Your task to perform on an android device: clear all cookies in the chrome app Image 0: 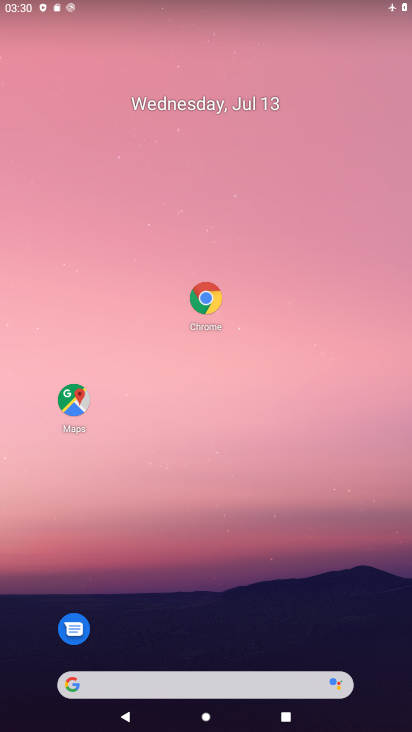
Step 0: drag from (311, 568) to (309, 185)
Your task to perform on an android device: clear all cookies in the chrome app Image 1: 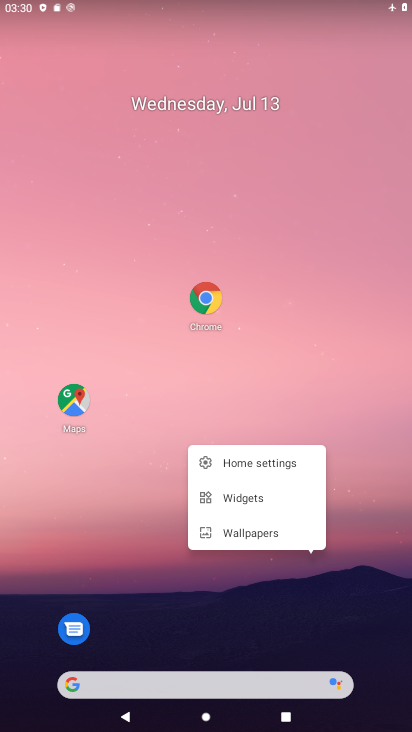
Step 1: click (208, 292)
Your task to perform on an android device: clear all cookies in the chrome app Image 2: 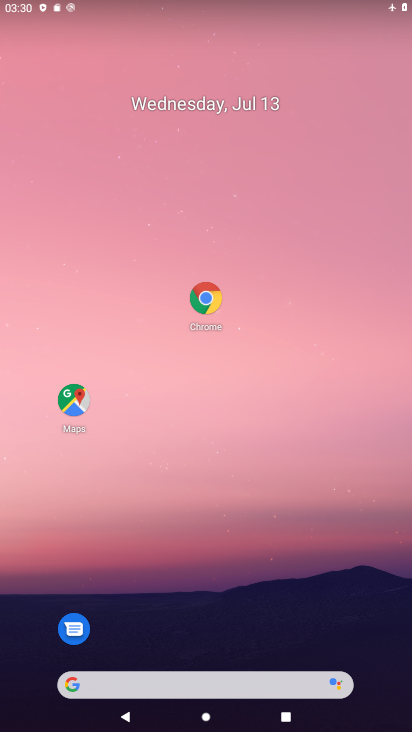
Step 2: click (208, 292)
Your task to perform on an android device: clear all cookies in the chrome app Image 3: 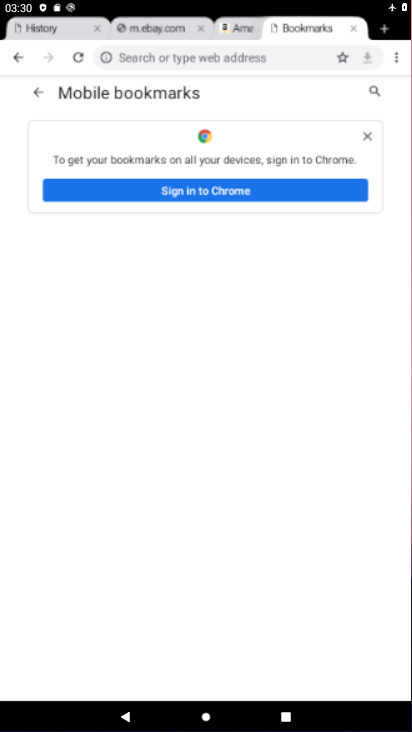
Step 3: click (208, 292)
Your task to perform on an android device: clear all cookies in the chrome app Image 4: 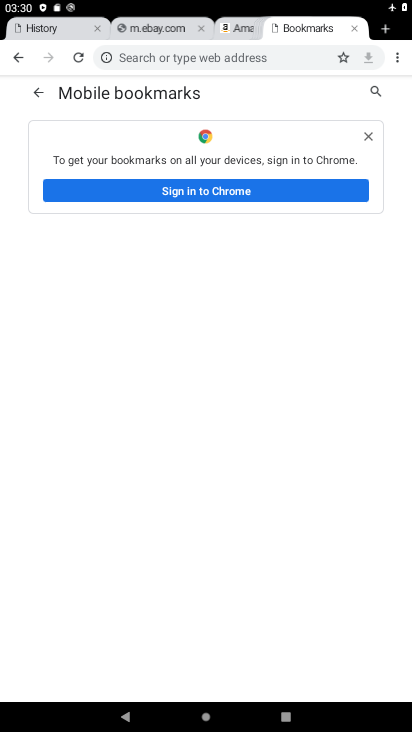
Step 4: click (389, 50)
Your task to perform on an android device: clear all cookies in the chrome app Image 5: 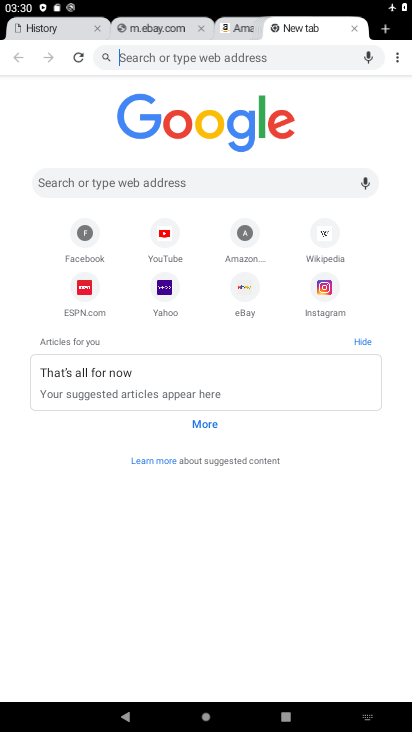
Step 5: click (397, 51)
Your task to perform on an android device: clear all cookies in the chrome app Image 6: 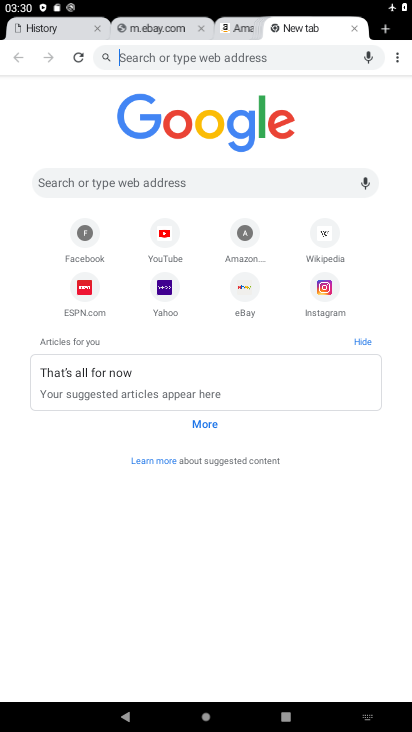
Step 6: click (392, 61)
Your task to perform on an android device: clear all cookies in the chrome app Image 7: 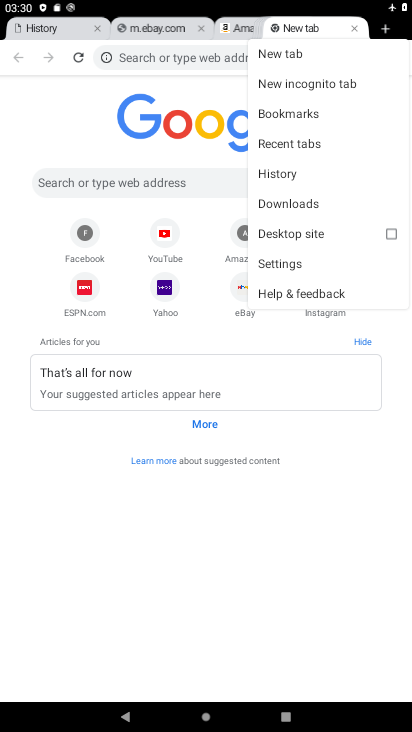
Step 7: click (284, 252)
Your task to perform on an android device: clear all cookies in the chrome app Image 8: 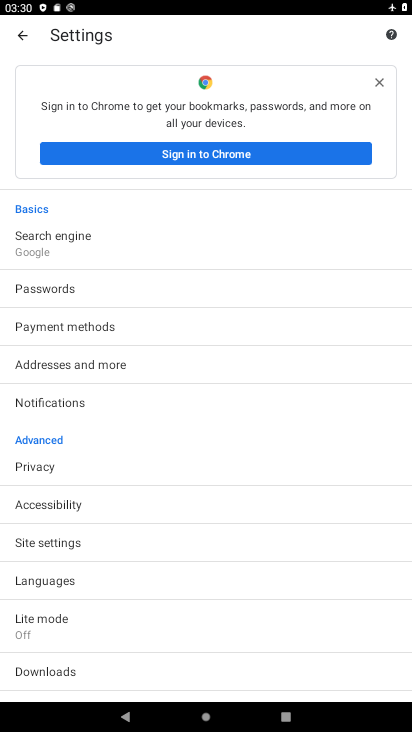
Step 8: click (84, 452)
Your task to perform on an android device: clear all cookies in the chrome app Image 9: 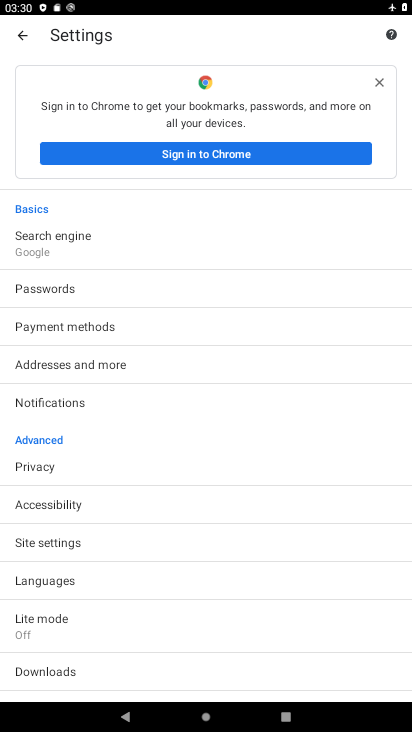
Step 9: click (61, 456)
Your task to perform on an android device: clear all cookies in the chrome app Image 10: 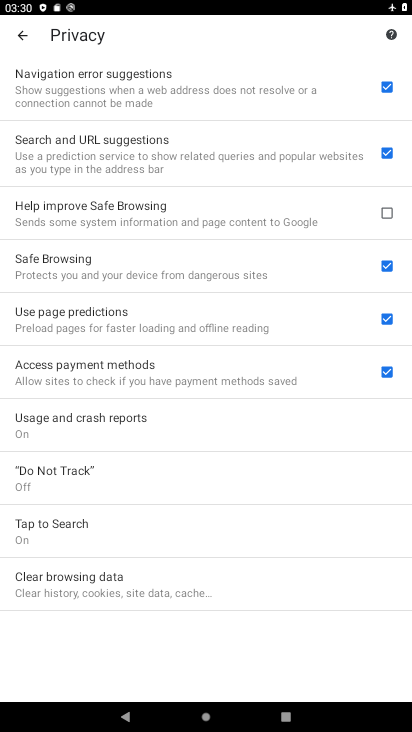
Step 10: click (277, 583)
Your task to perform on an android device: clear all cookies in the chrome app Image 11: 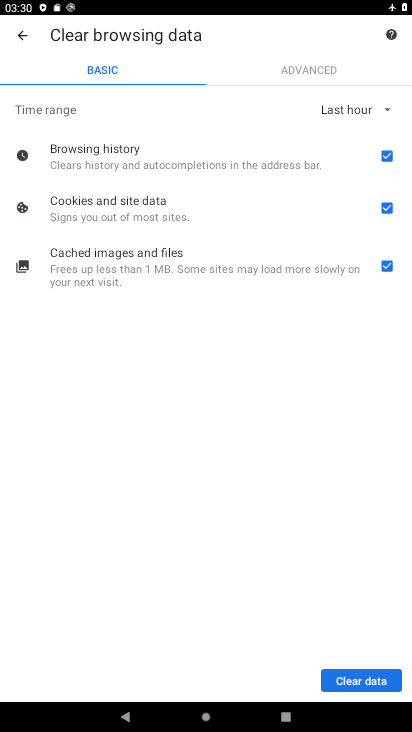
Step 11: click (375, 683)
Your task to perform on an android device: clear all cookies in the chrome app Image 12: 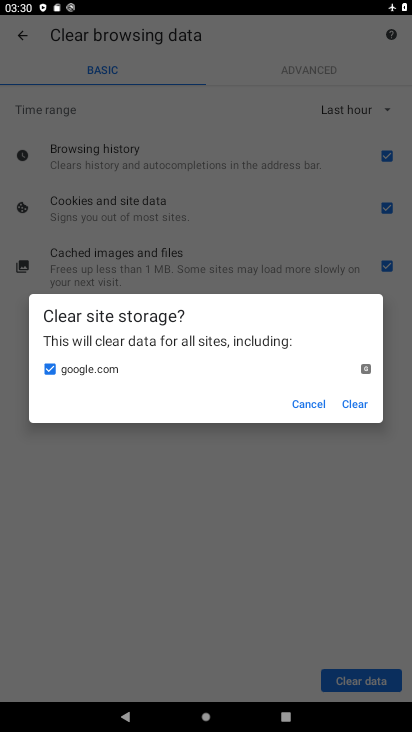
Step 12: click (370, 680)
Your task to perform on an android device: clear all cookies in the chrome app Image 13: 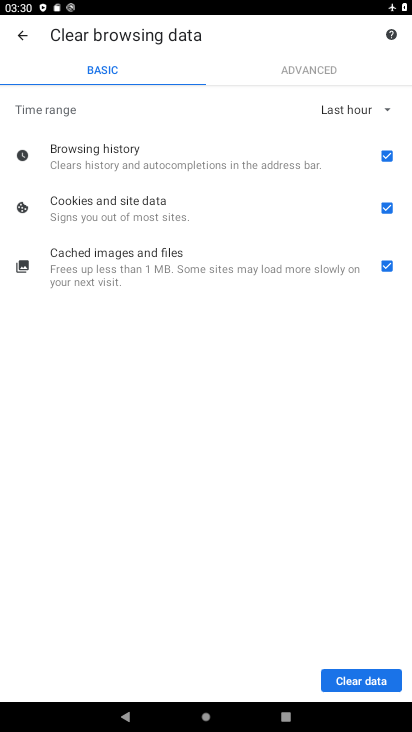
Step 13: click (353, 669)
Your task to perform on an android device: clear all cookies in the chrome app Image 14: 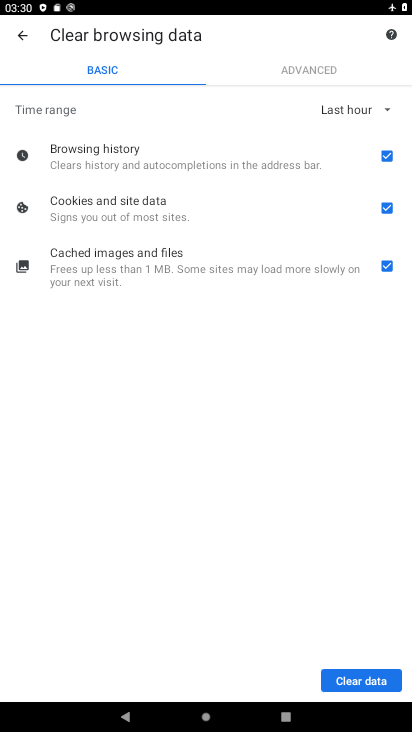
Step 14: click (355, 677)
Your task to perform on an android device: clear all cookies in the chrome app Image 15: 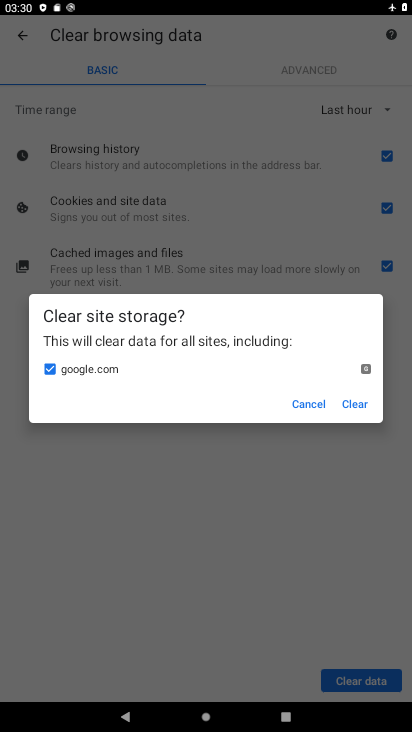
Step 15: click (352, 679)
Your task to perform on an android device: clear all cookies in the chrome app Image 16: 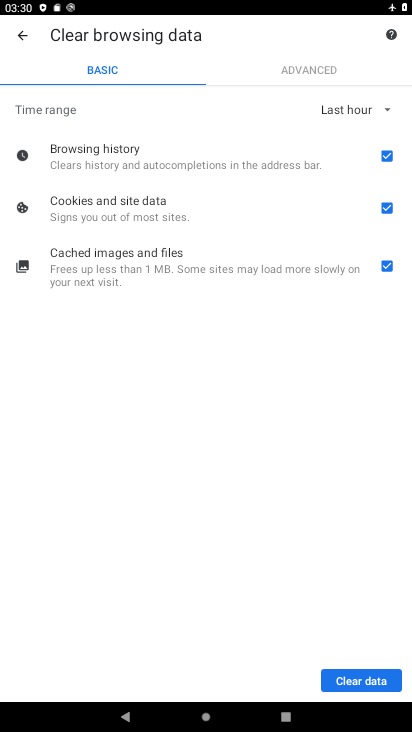
Step 16: click (343, 399)
Your task to perform on an android device: clear all cookies in the chrome app Image 17: 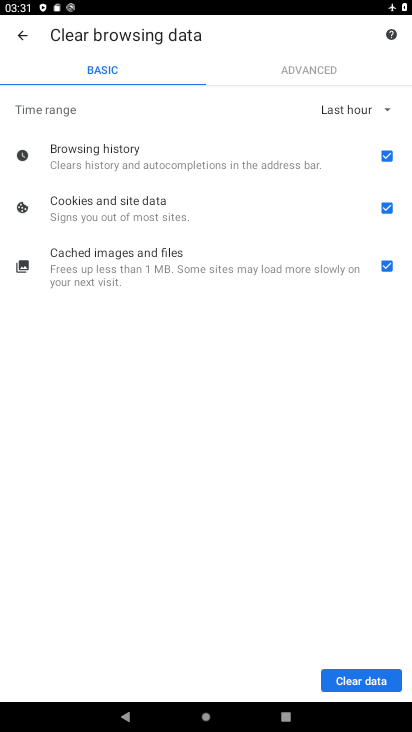
Step 17: task complete